Your task to perform on an android device: Search for flights from Boston to Sydney Image 0: 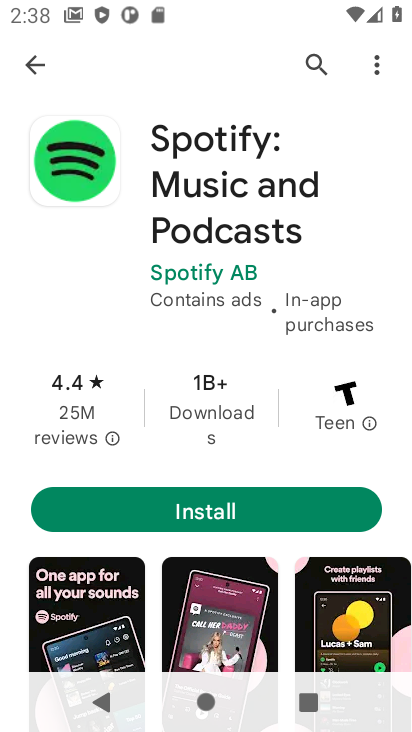
Step 0: press home button
Your task to perform on an android device: Search for flights from Boston to Sydney Image 1: 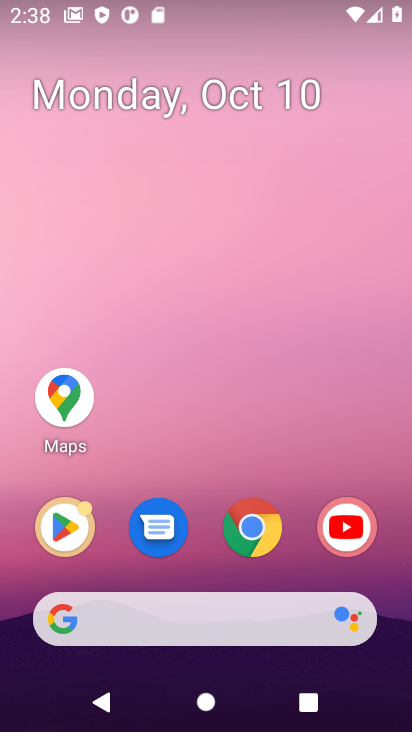
Step 1: click (246, 617)
Your task to perform on an android device: Search for flights from Boston to Sydney Image 2: 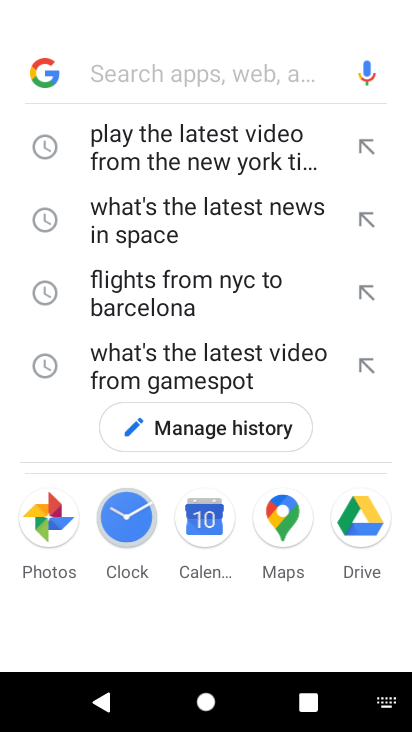
Step 2: type "flights from Boston to Sydney"
Your task to perform on an android device: Search for flights from Boston to Sydney Image 3: 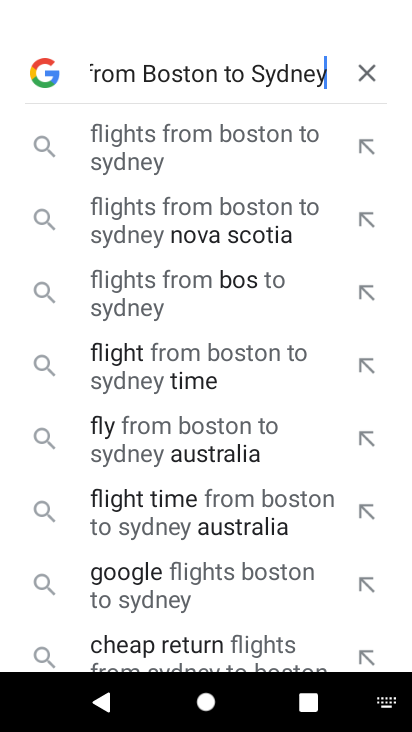
Step 3: press enter
Your task to perform on an android device: Search for flights from Boston to Sydney Image 4: 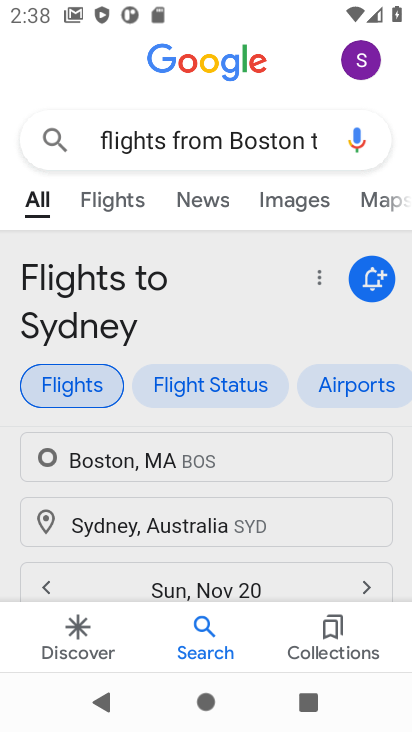
Step 4: drag from (294, 501) to (298, 286)
Your task to perform on an android device: Search for flights from Boston to Sydney Image 5: 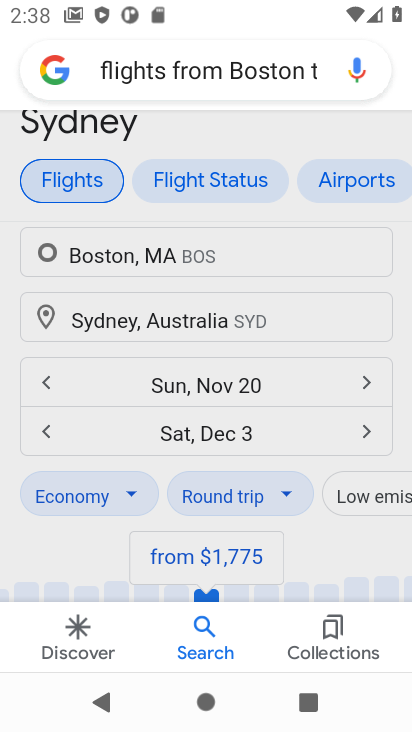
Step 5: drag from (278, 526) to (295, 283)
Your task to perform on an android device: Search for flights from Boston to Sydney Image 6: 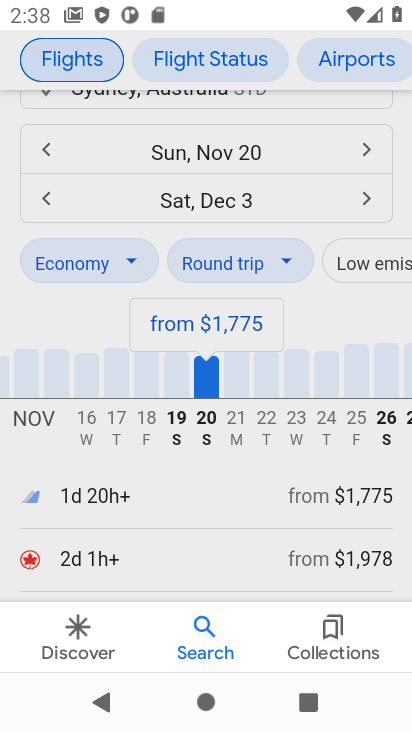
Step 6: drag from (237, 523) to (259, 267)
Your task to perform on an android device: Search for flights from Boston to Sydney Image 7: 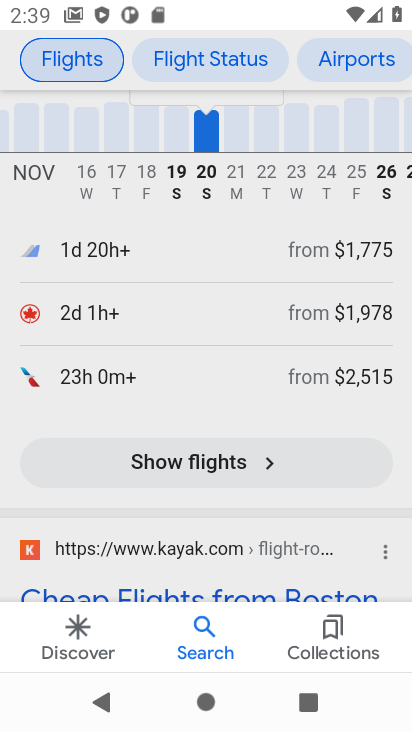
Step 7: click (218, 471)
Your task to perform on an android device: Search for flights from Boston to Sydney Image 8: 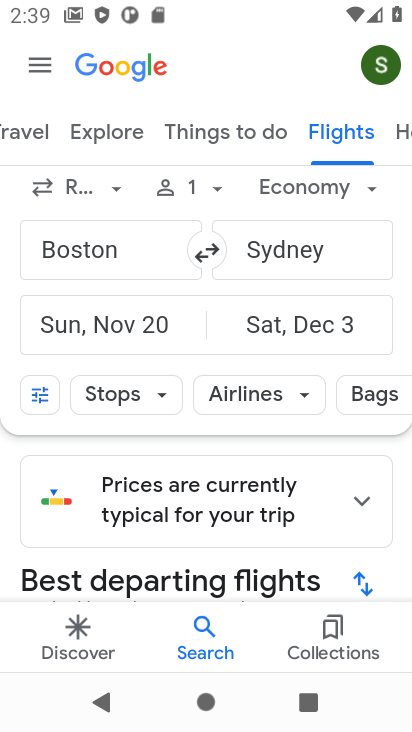
Step 8: task complete